Your task to perform on an android device: What's on my calendar tomorrow? Image 0: 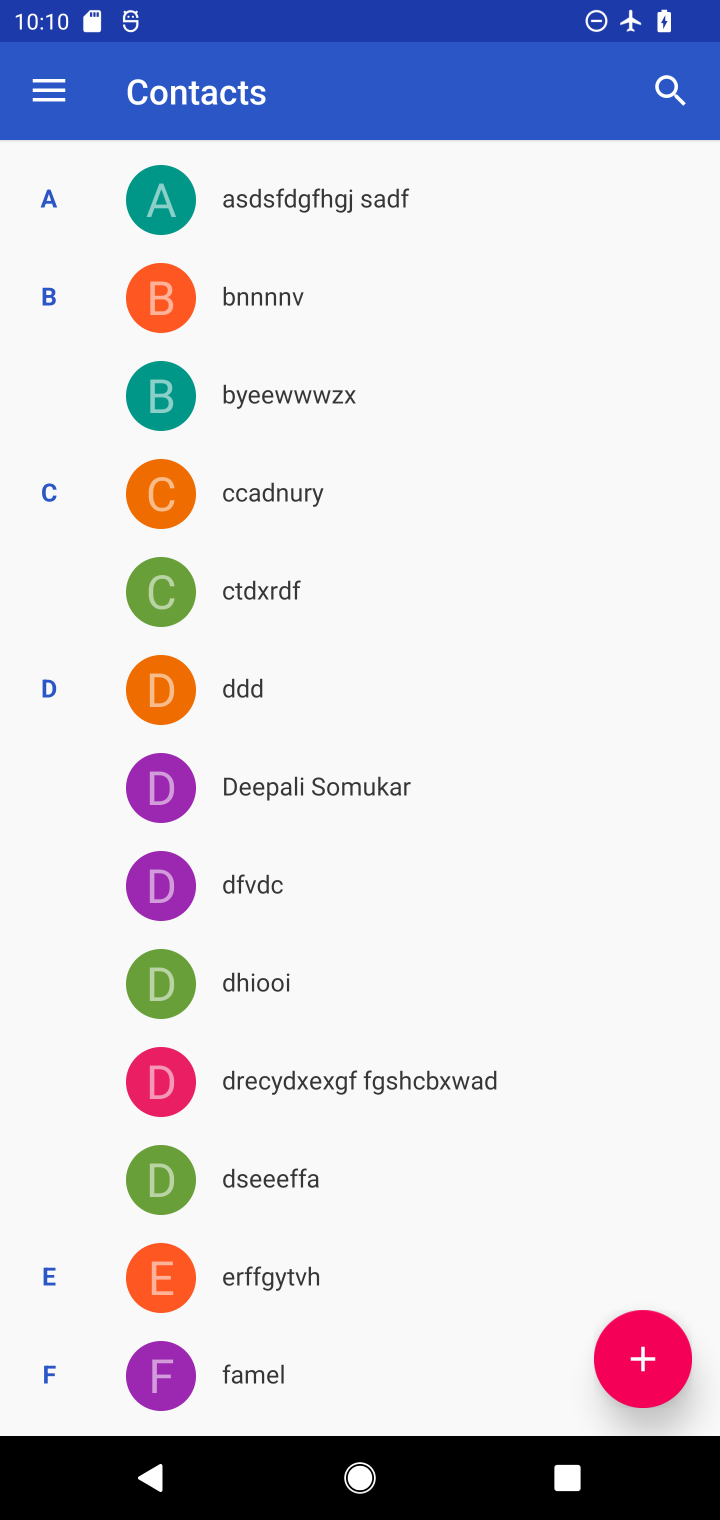
Step 0: press home button
Your task to perform on an android device: What's on my calendar tomorrow? Image 1: 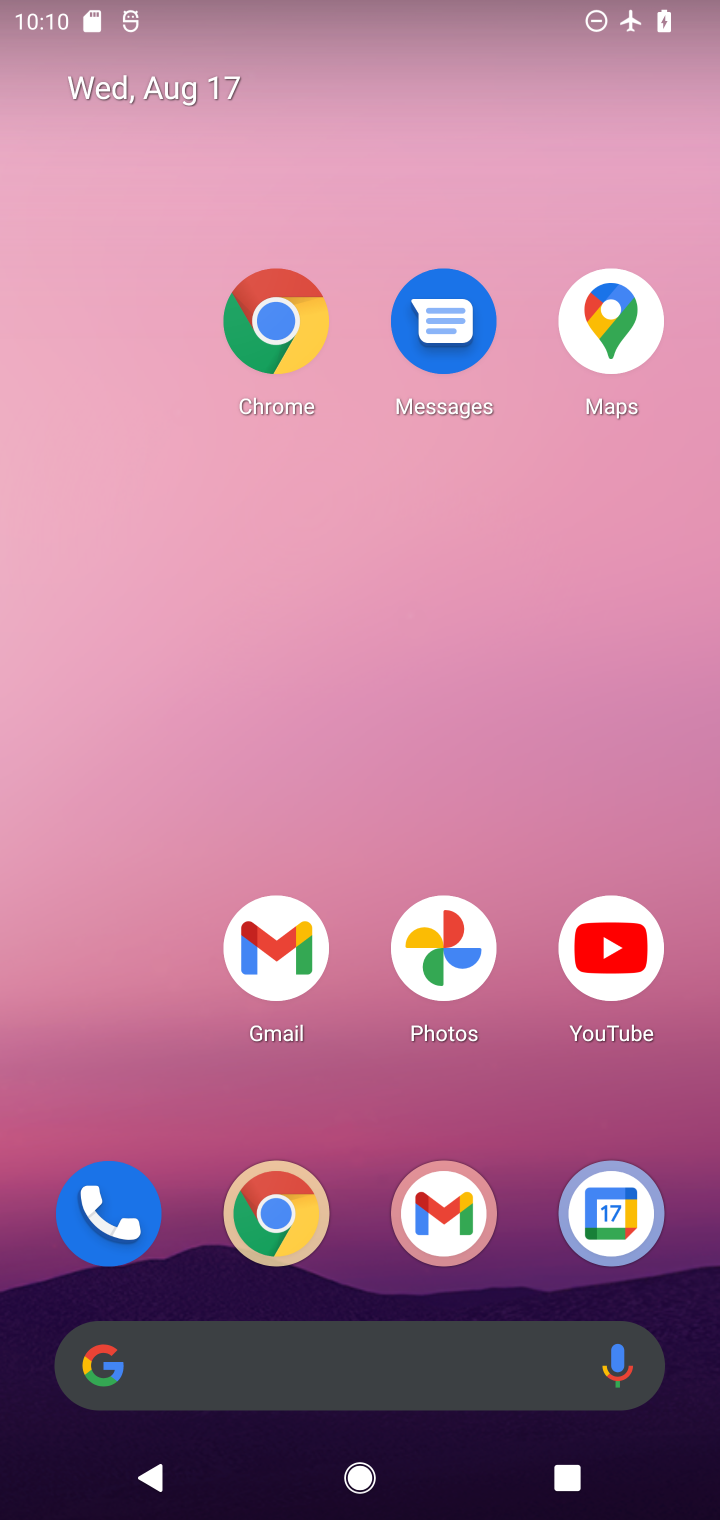
Step 1: click (601, 1237)
Your task to perform on an android device: What's on my calendar tomorrow? Image 2: 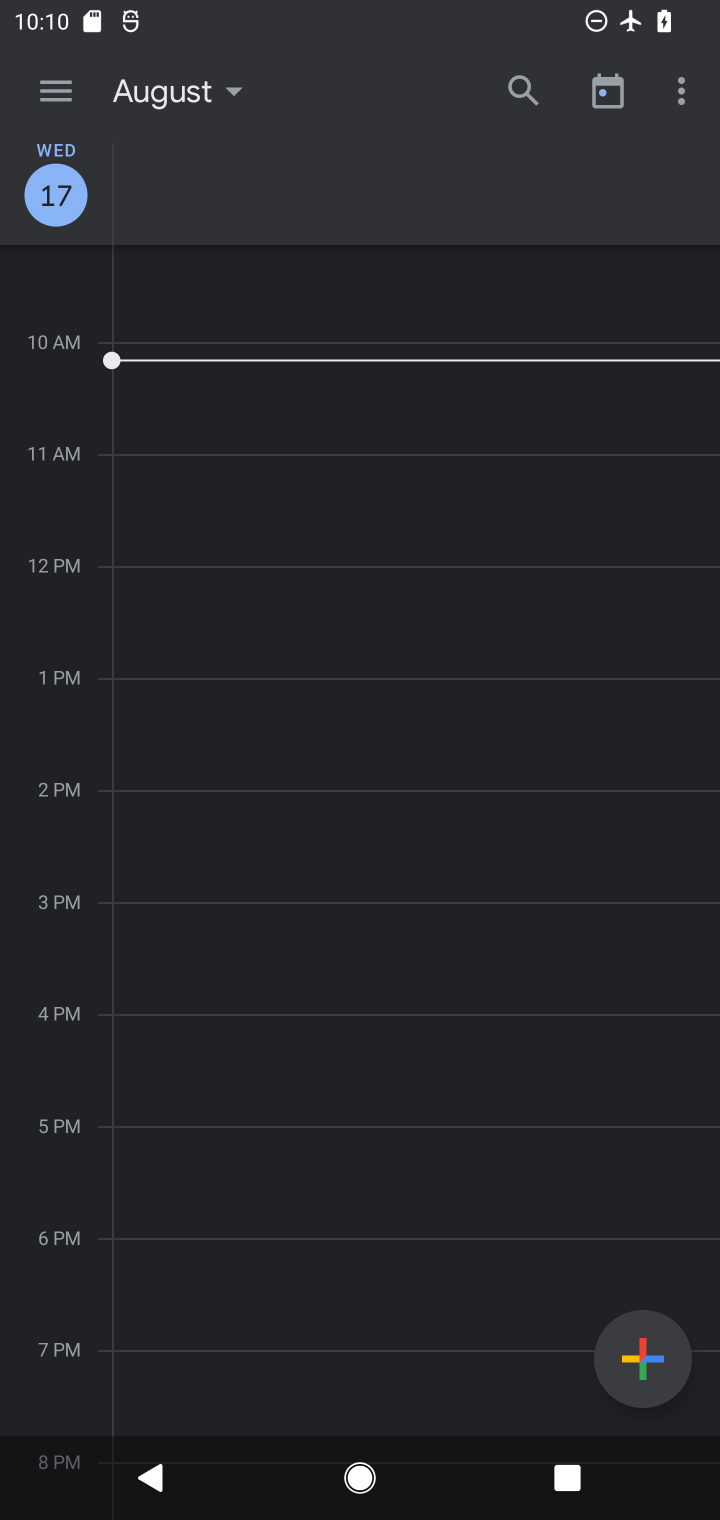
Step 2: task complete